Your task to perform on an android device: Show me popular videos on Youtube Image 0: 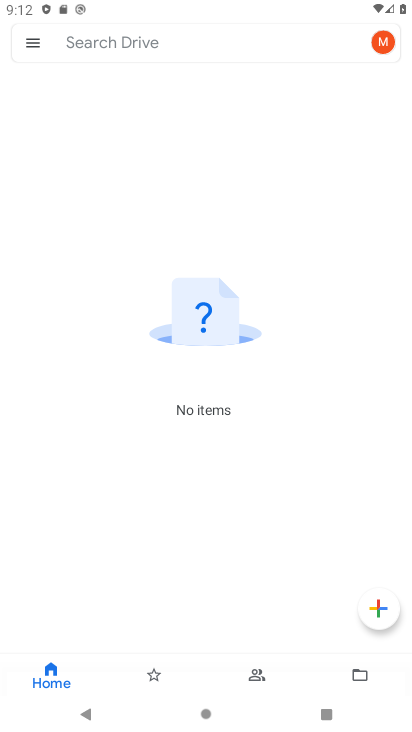
Step 0: press back button
Your task to perform on an android device: Show me popular videos on Youtube Image 1: 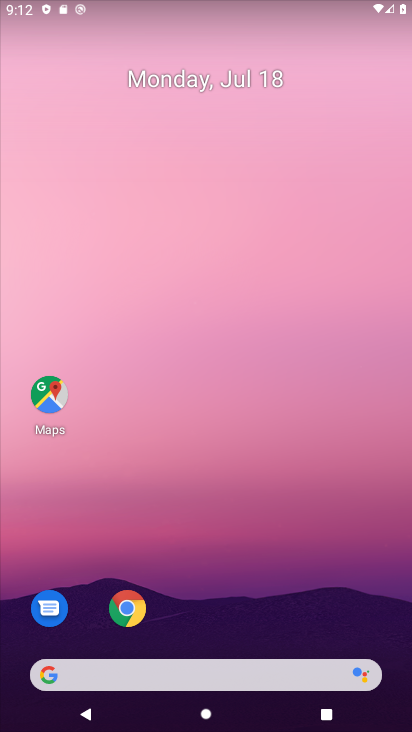
Step 1: drag from (163, 520) to (16, 111)
Your task to perform on an android device: Show me popular videos on Youtube Image 2: 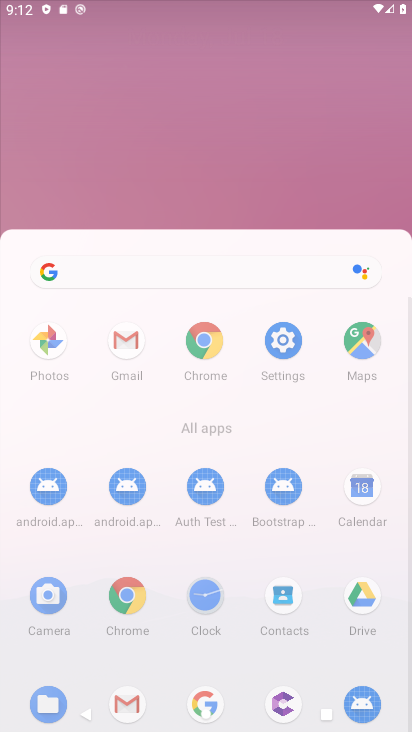
Step 2: drag from (269, 444) to (175, 108)
Your task to perform on an android device: Show me popular videos on Youtube Image 3: 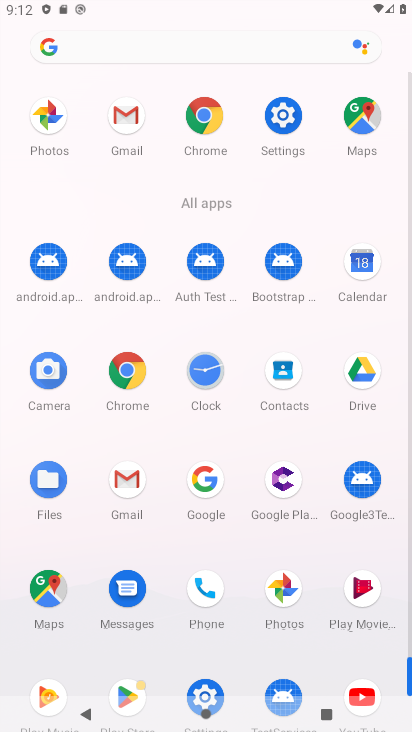
Step 3: click (363, 683)
Your task to perform on an android device: Show me popular videos on Youtube Image 4: 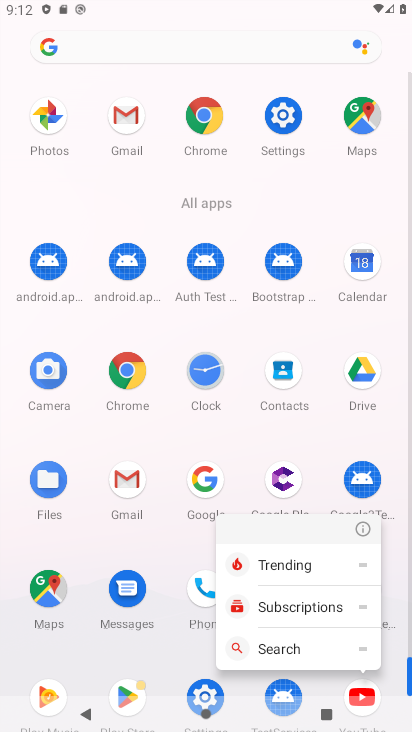
Step 4: click (363, 690)
Your task to perform on an android device: Show me popular videos on Youtube Image 5: 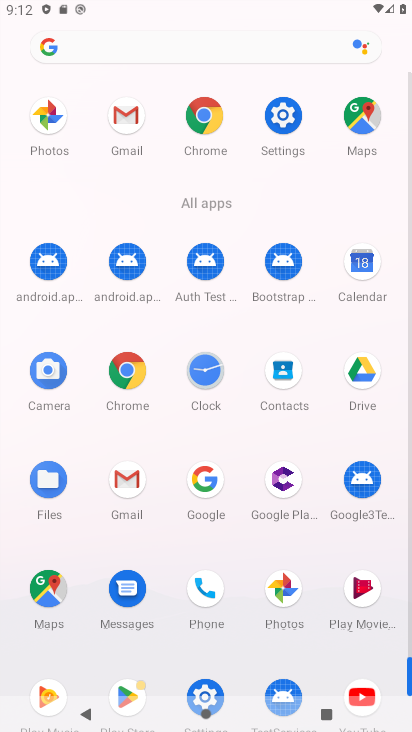
Step 5: click (363, 690)
Your task to perform on an android device: Show me popular videos on Youtube Image 6: 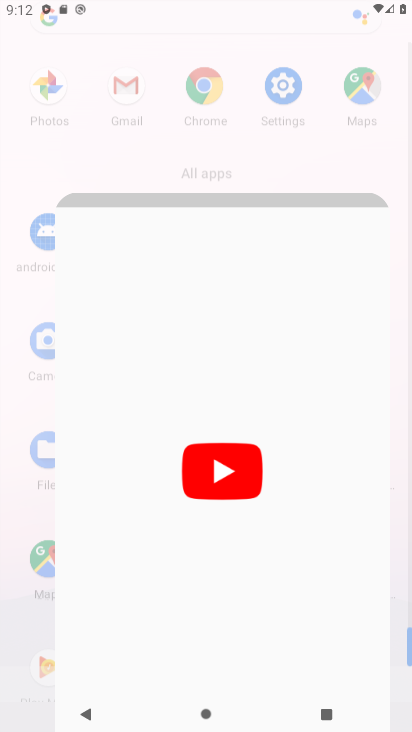
Step 6: click (363, 690)
Your task to perform on an android device: Show me popular videos on Youtube Image 7: 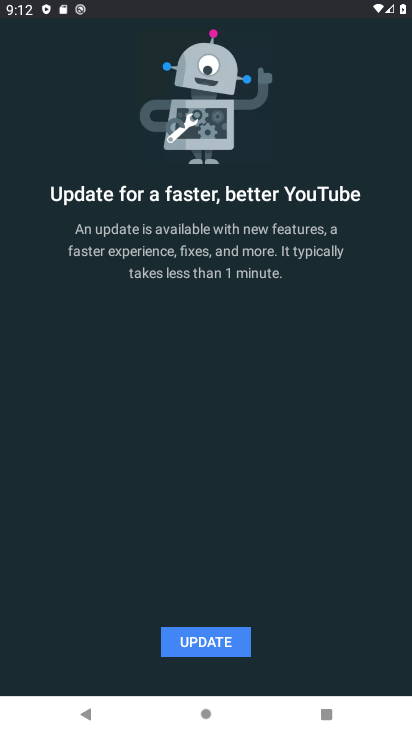
Step 7: click (194, 641)
Your task to perform on an android device: Show me popular videos on Youtube Image 8: 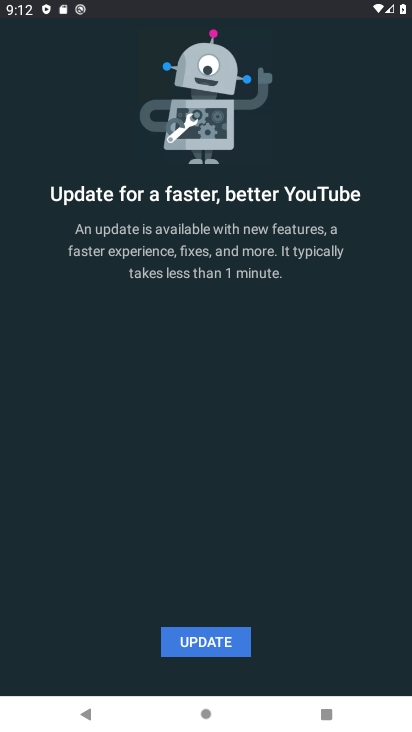
Step 8: click (199, 641)
Your task to perform on an android device: Show me popular videos on Youtube Image 9: 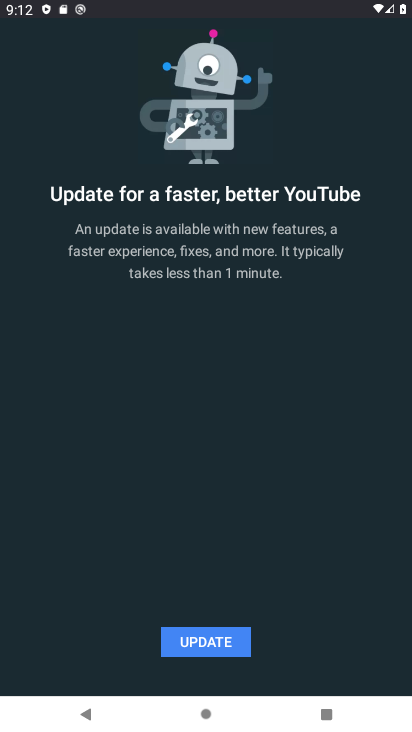
Step 9: click (199, 641)
Your task to perform on an android device: Show me popular videos on Youtube Image 10: 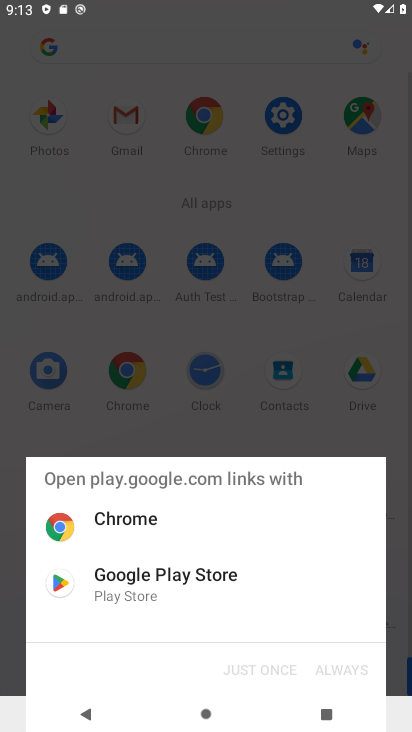
Step 10: click (120, 517)
Your task to perform on an android device: Show me popular videos on Youtube Image 11: 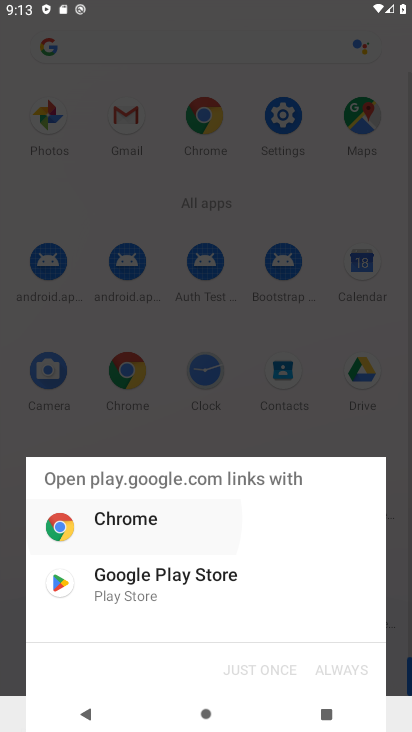
Step 11: click (120, 515)
Your task to perform on an android device: Show me popular videos on Youtube Image 12: 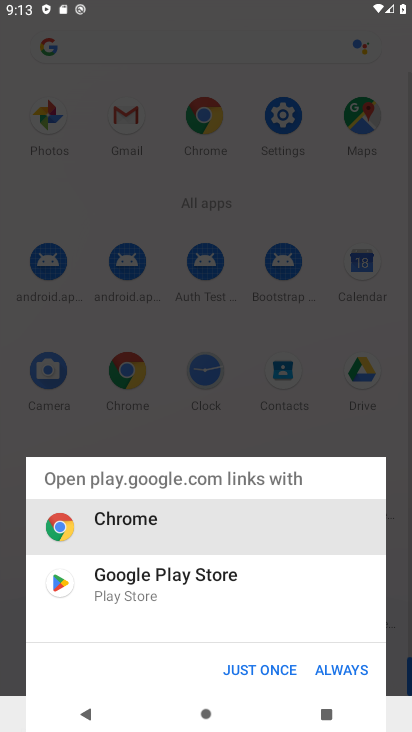
Step 12: click (138, 504)
Your task to perform on an android device: Show me popular videos on Youtube Image 13: 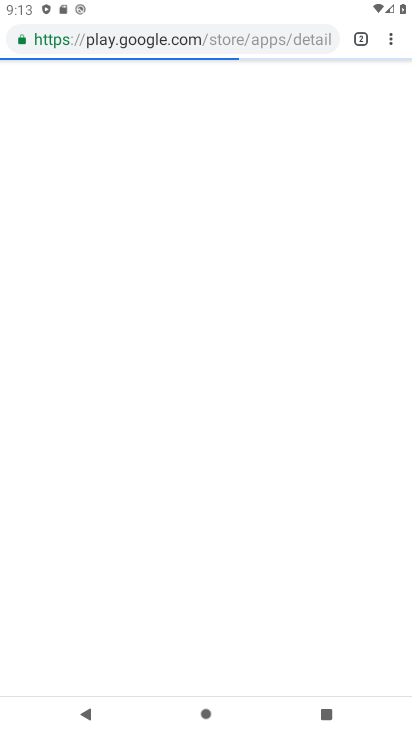
Step 13: click (146, 521)
Your task to perform on an android device: Show me popular videos on Youtube Image 14: 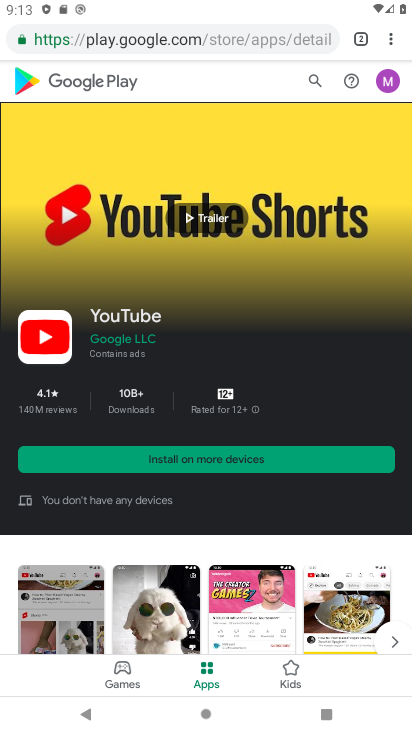
Step 14: click (147, 45)
Your task to perform on an android device: Show me popular videos on Youtube Image 15: 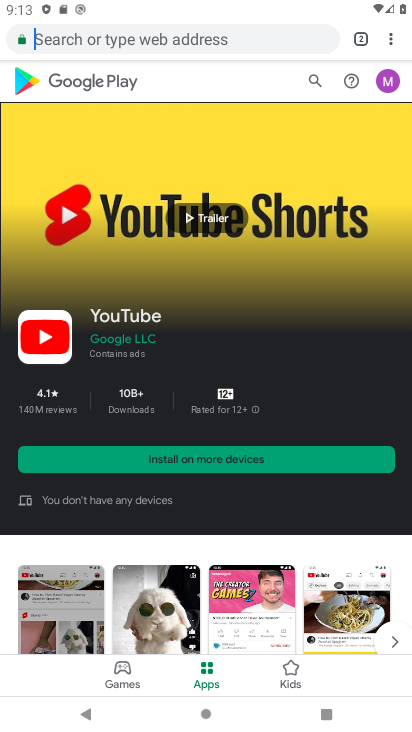
Step 15: click (147, 44)
Your task to perform on an android device: Show me popular videos on Youtube Image 16: 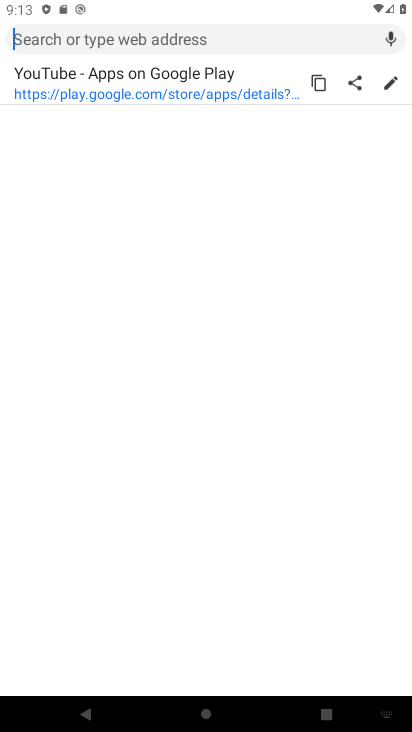
Step 16: type "popular videos"
Your task to perform on an android device: Show me popular videos on Youtube Image 17: 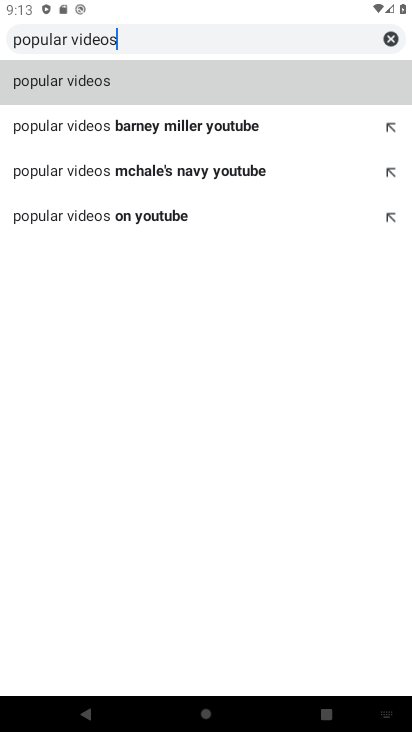
Step 17: click (62, 82)
Your task to perform on an android device: Show me popular videos on Youtube Image 18: 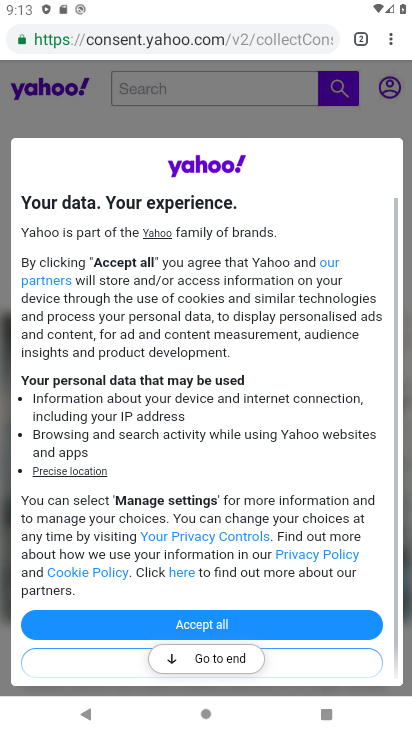
Step 18: task complete